Your task to perform on an android device: Open the stopwatch Image 0: 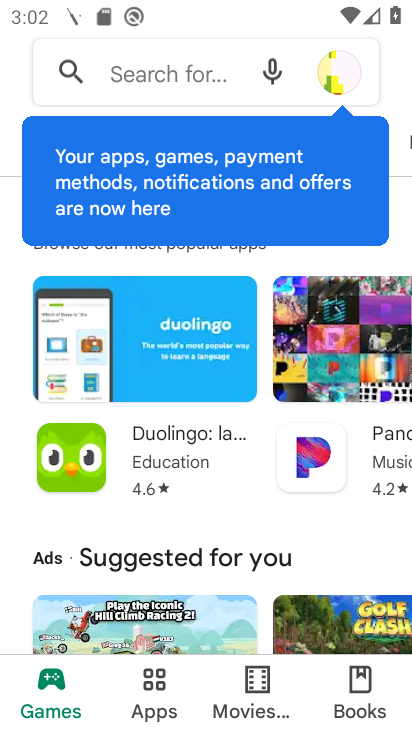
Step 0: press home button
Your task to perform on an android device: Open the stopwatch Image 1: 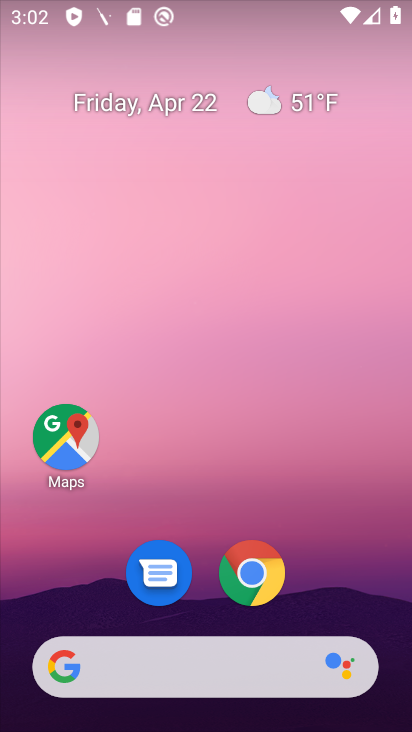
Step 1: drag from (325, 308) to (319, 140)
Your task to perform on an android device: Open the stopwatch Image 2: 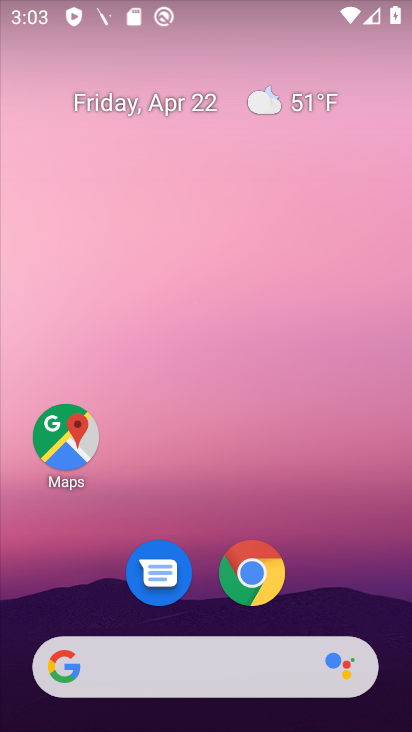
Step 2: drag from (313, 613) to (322, 108)
Your task to perform on an android device: Open the stopwatch Image 3: 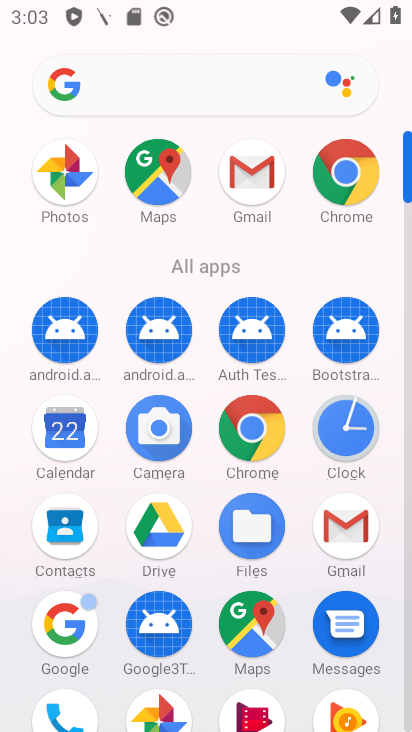
Step 3: click (330, 436)
Your task to perform on an android device: Open the stopwatch Image 4: 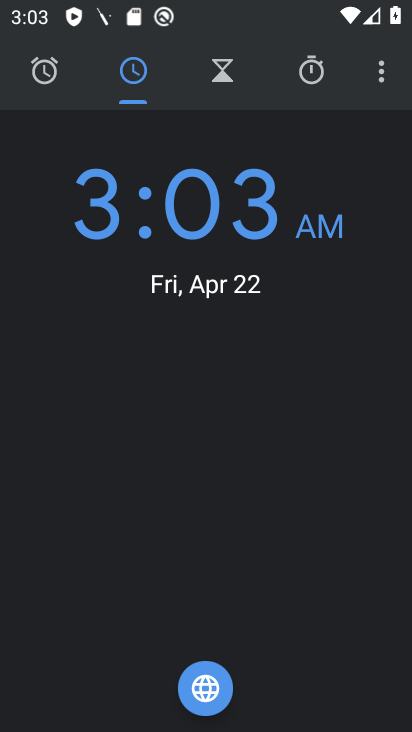
Step 4: click (308, 76)
Your task to perform on an android device: Open the stopwatch Image 5: 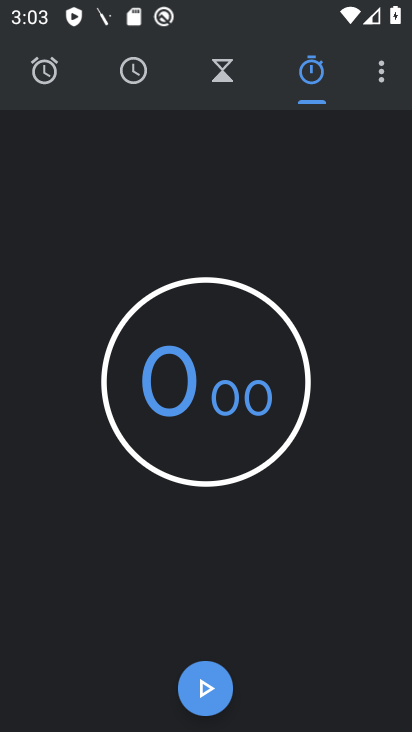
Step 5: task complete